Your task to perform on an android device: open a bookmark in the chrome app Image 0: 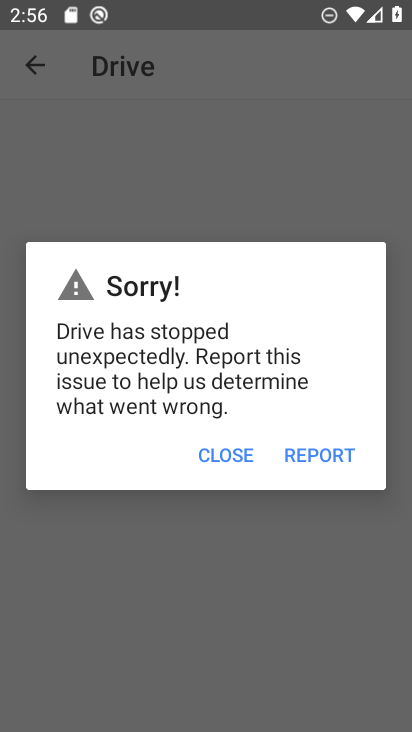
Step 0: press home button
Your task to perform on an android device: open a bookmark in the chrome app Image 1: 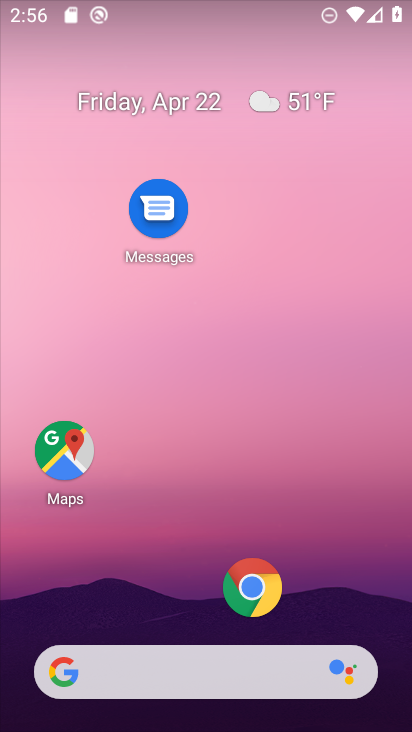
Step 1: click (229, 582)
Your task to perform on an android device: open a bookmark in the chrome app Image 2: 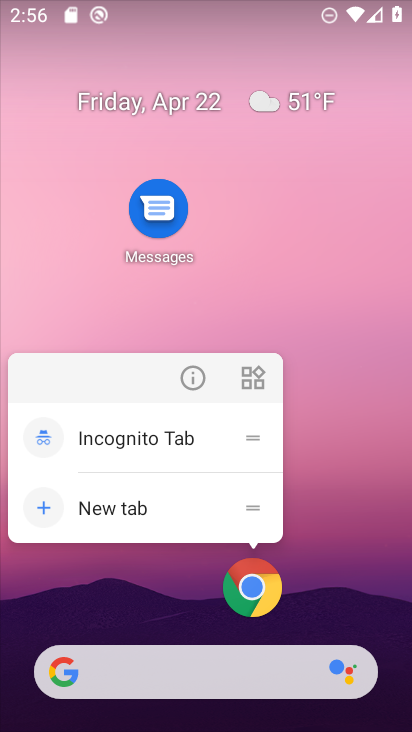
Step 2: click (248, 581)
Your task to perform on an android device: open a bookmark in the chrome app Image 3: 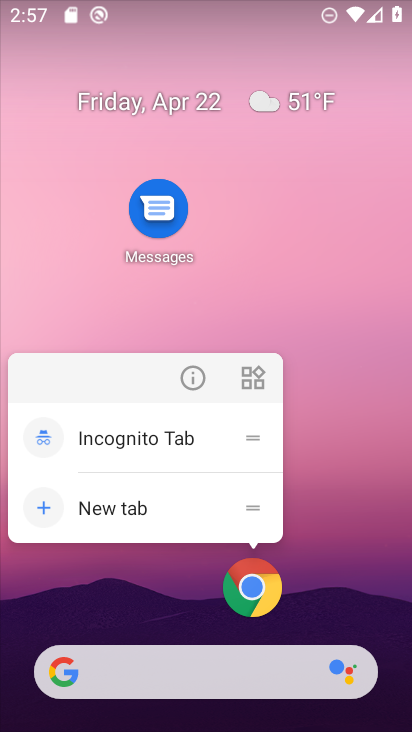
Step 3: click (264, 584)
Your task to perform on an android device: open a bookmark in the chrome app Image 4: 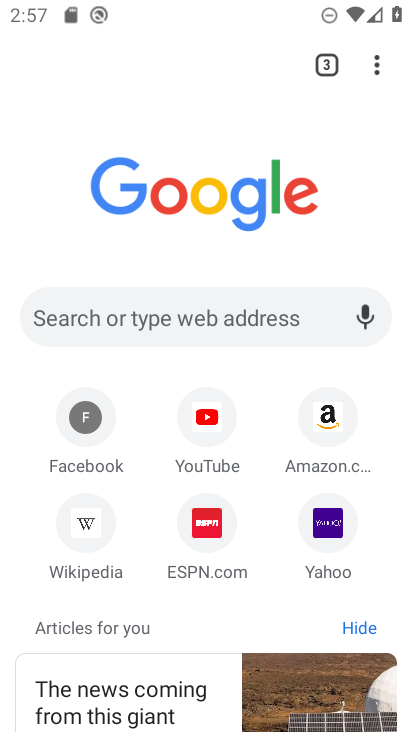
Step 4: task complete